Your task to perform on an android device: Go to calendar. Show me events next week Image 0: 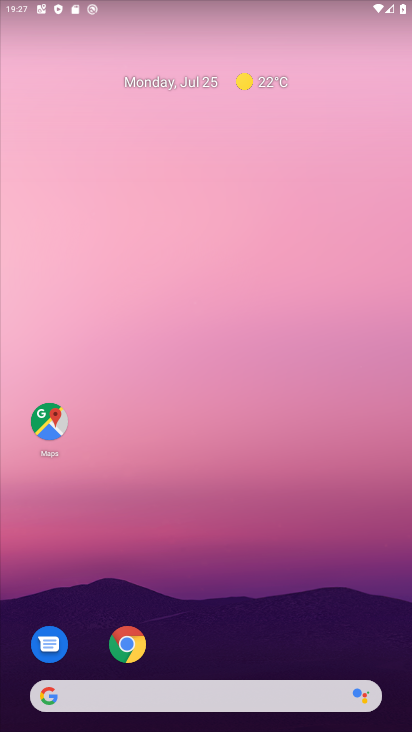
Step 0: press home button
Your task to perform on an android device: Go to calendar. Show me events next week Image 1: 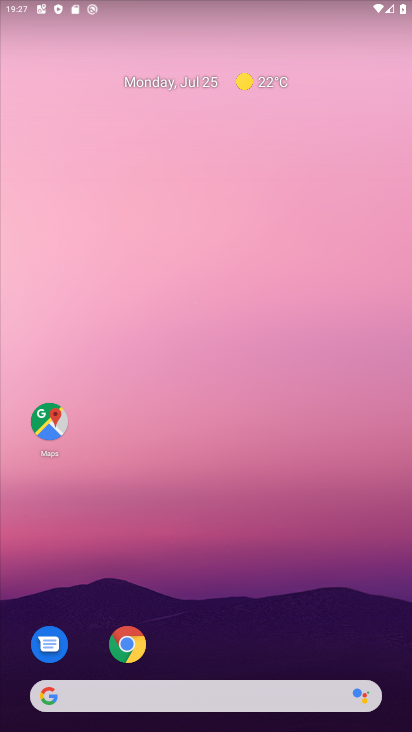
Step 1: drag from (203, 666) to (197, 9)
Your task to perform on an android device: Go to calendar. Show me events next week Image 2: 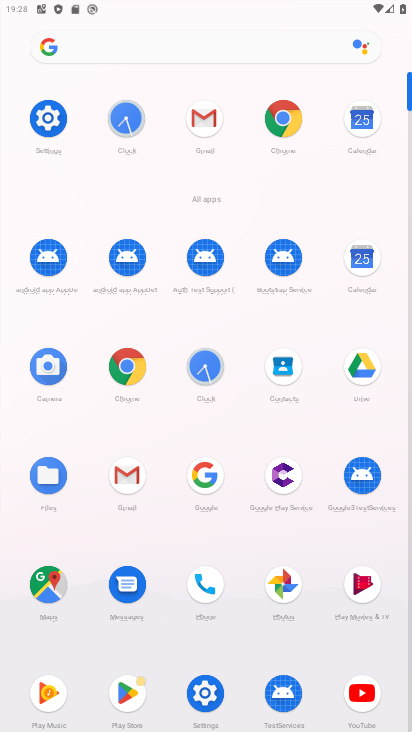
Step 2: click (357, 113)
Your task to perform on an android device: Go to calendar. Show me events next week Image 3: 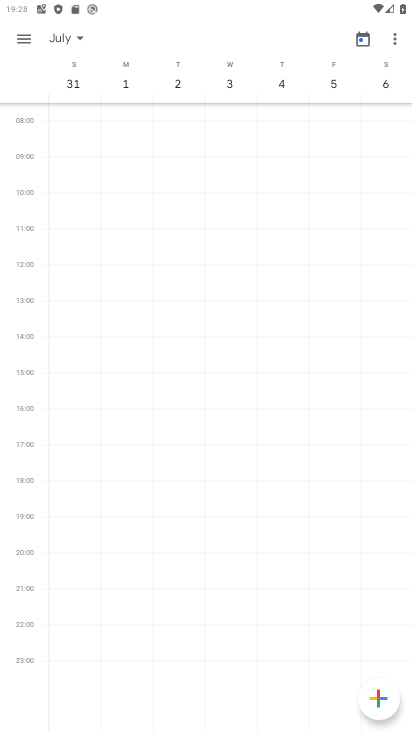
Step 3: task complete